Your task to perform on an android device: see creations saved in the google photos Image 0: 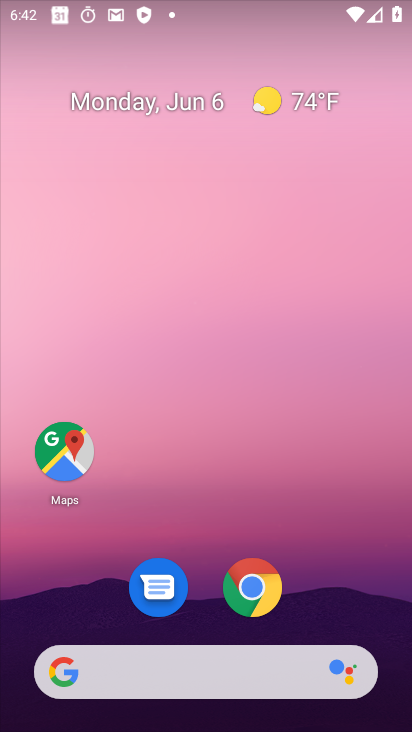
Step 0: drag from (389, 627) to (293, 13)
Your task to perform on an android device: see creations saved in the google photos Image 1: 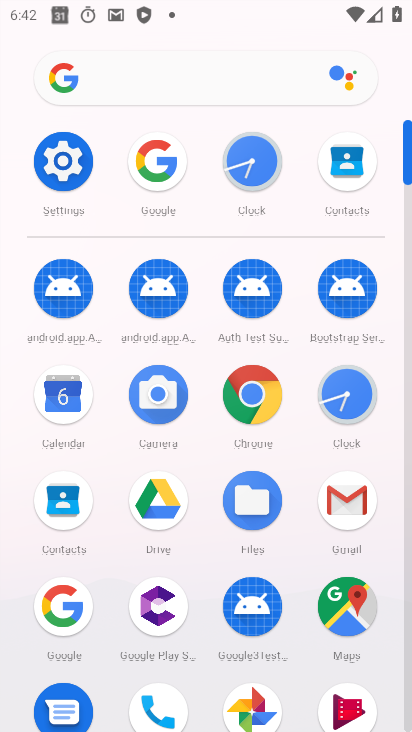
Step 1: click (272, 707)
Your task to perform on an android device: see creations saved in the google photos Image 2: 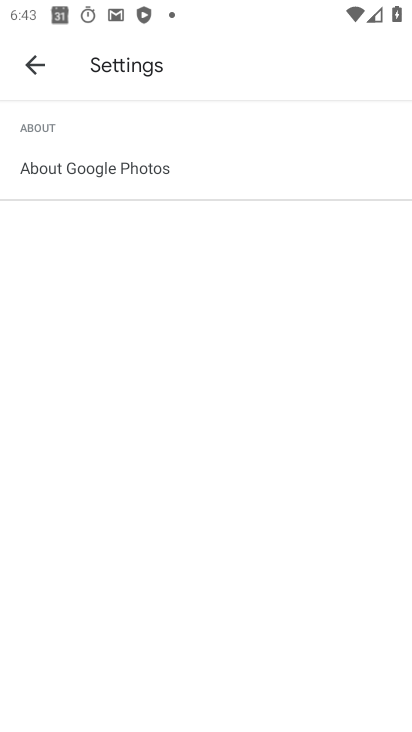
Step 2: press home button
Your task to perform on an android device: see creations saved in the google photos Image 3: 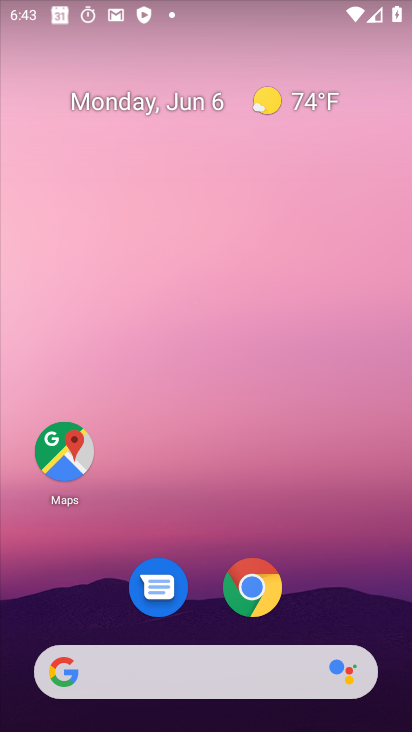
Step 3: drag from (399, 615) to (284, 45)
Your task to perform on an android device: see creations saved in the google photos Image 4: 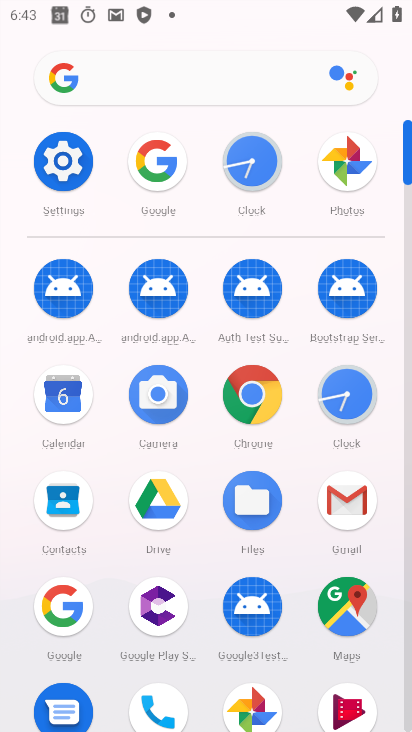
Step 4: click (241, 690)
Your task to perform on an android device: see creations saved in the google photos Image 5: 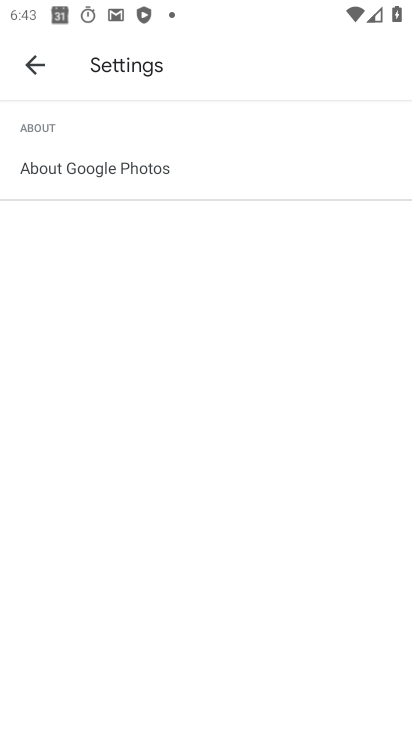
Step 5: press back button
Your task to perform on an android device: see creations saved in the google photos Image 6: 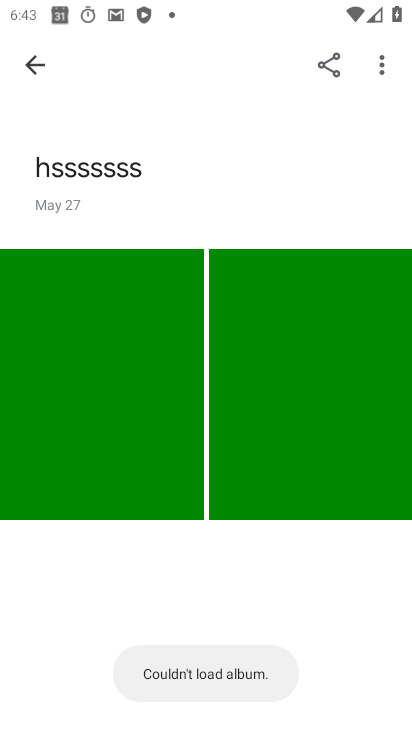
Step 6: press back button
Your task to perform on an android device: see creations saved in the google photos Image 7: 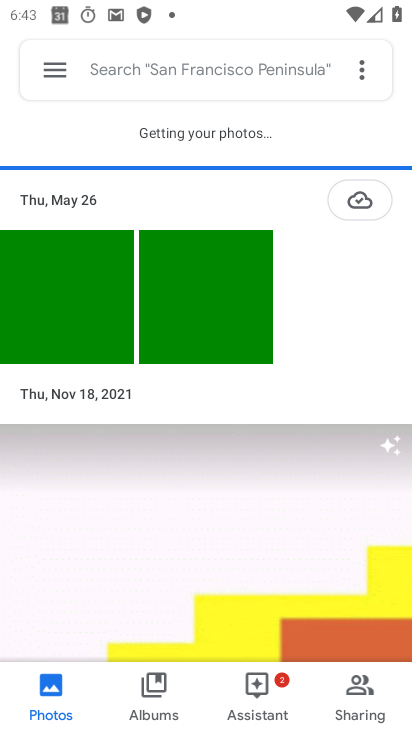
Step 7: click (115, 73)
Your task to perform on an android device: see creations saved in the google photos Image 8: 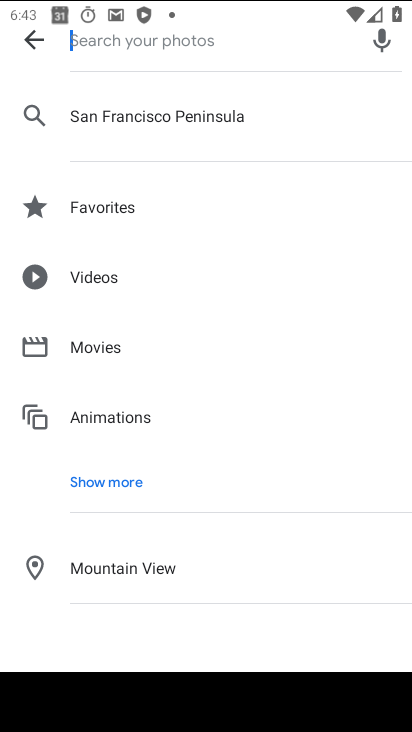
Step 8: click (104, 494)
Your task to perform on an android device: see creations saved in the google photos Image 9: 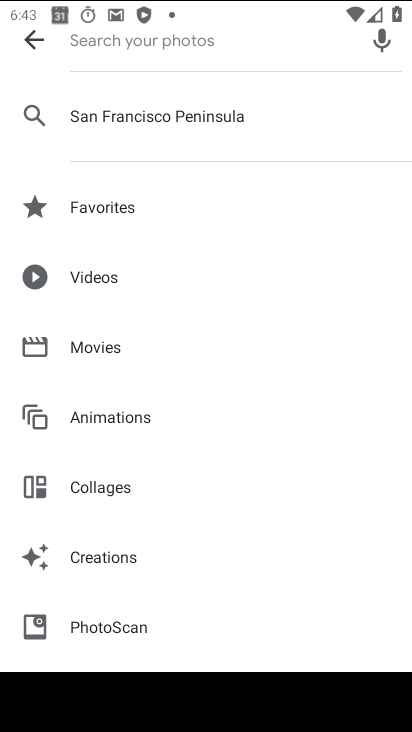
Step 9: click (100, 551)
Your task to perform on an android device: see creations saved in the google photos Image 10: 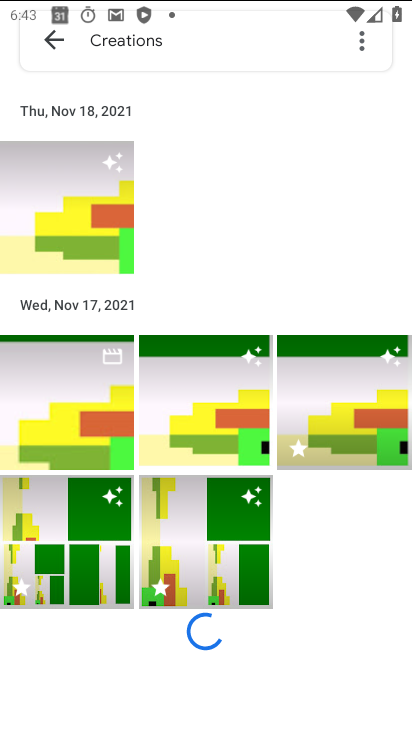
Step 10: task complete